Your task to perform on an android device: change the upload size in google photos Image 0: 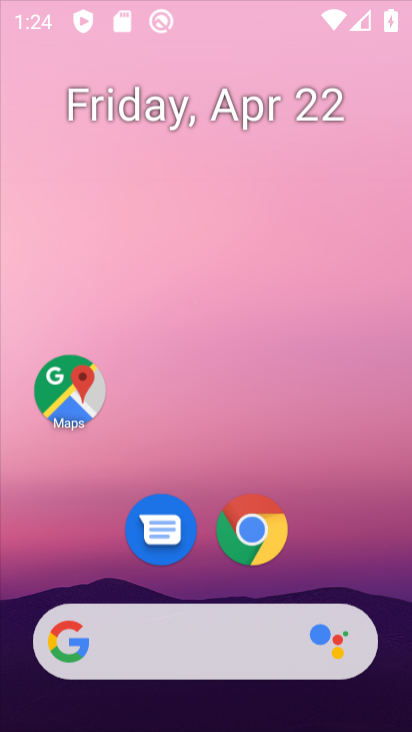
Step 0: click (233, 85)
Your task to perform on an android device: change the upload size in google photos Image 1: 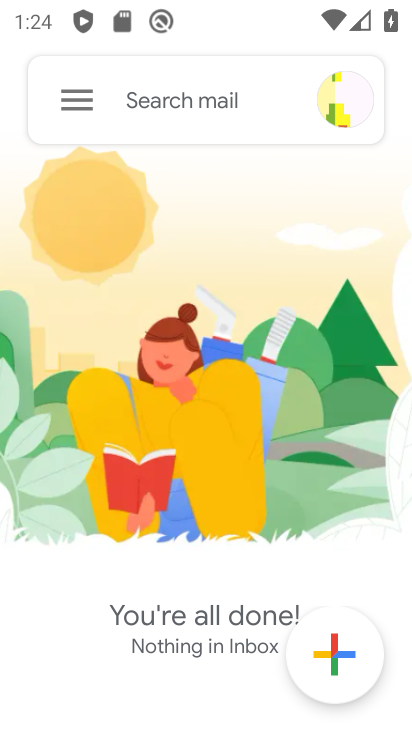
Step 1: press home button
Your task to perform on an android device: change the upload size in google photos Image 2: 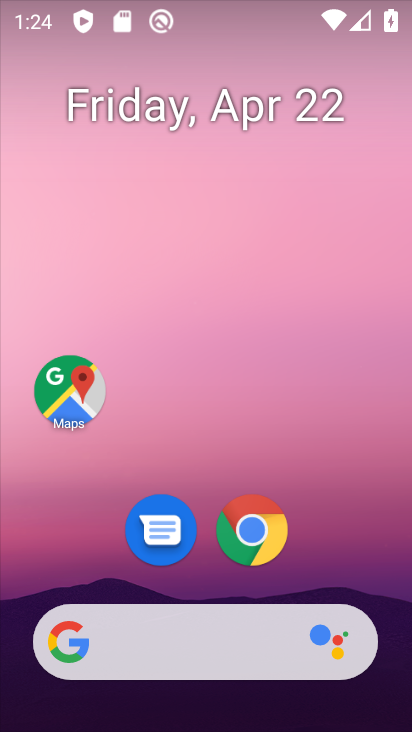
Step 2: drag from (253, 617) to (285, 176)
Your task to perform on an android device: change the upload size in google photos Image 3: 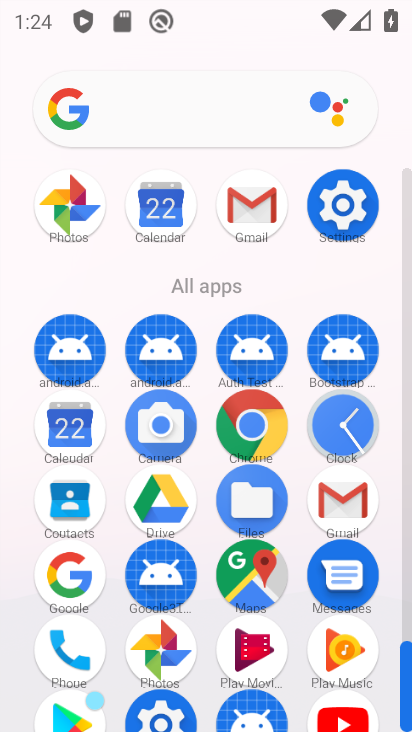
Step 3: click (69, 189)
Your task to perform on an android device: change the upload size in google photos Image 4: 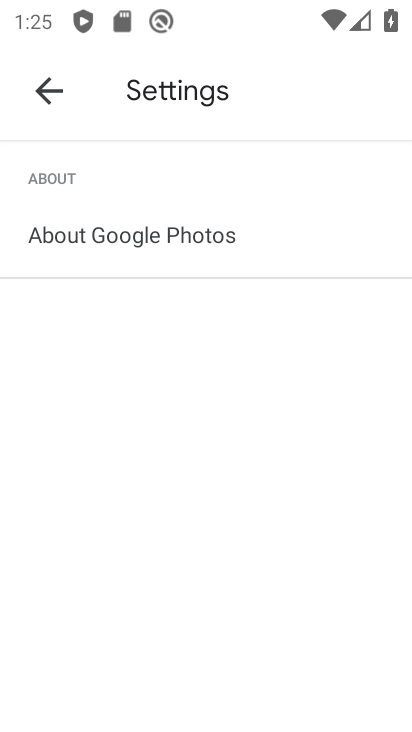
Step 4: click (44, 98)
Your task to perform on an android device: change the upload size in google photos Image 5: 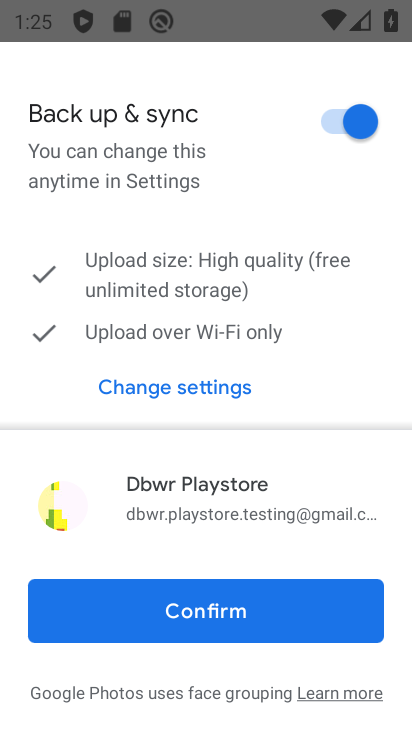
Step 5: click (281, 608)
Your task to perform on an android device: change the upload size in google photos Image 6: 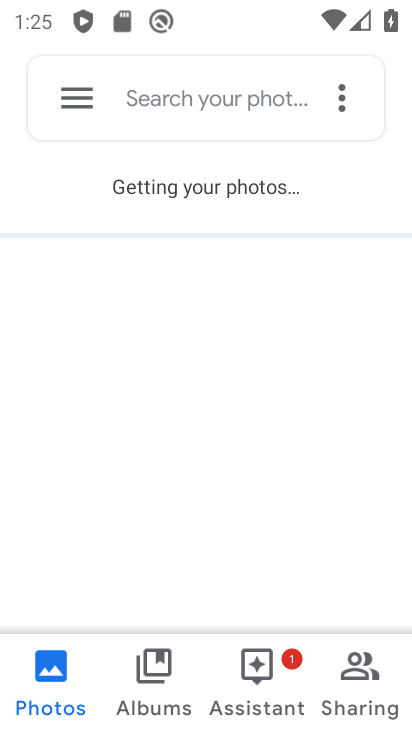
Step 6: click (66, 94)
Your task to perform on an android device: change the upload size in google photos Image 7: 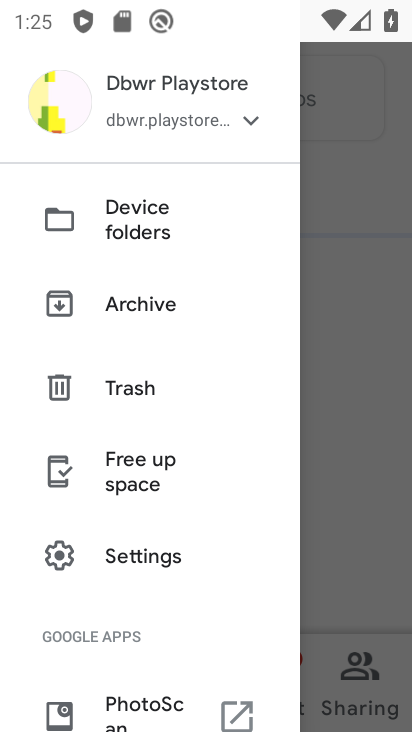
Step 7: click (140, 550)
Your task to perform on an android device: change the upload size in google photos Image 8: 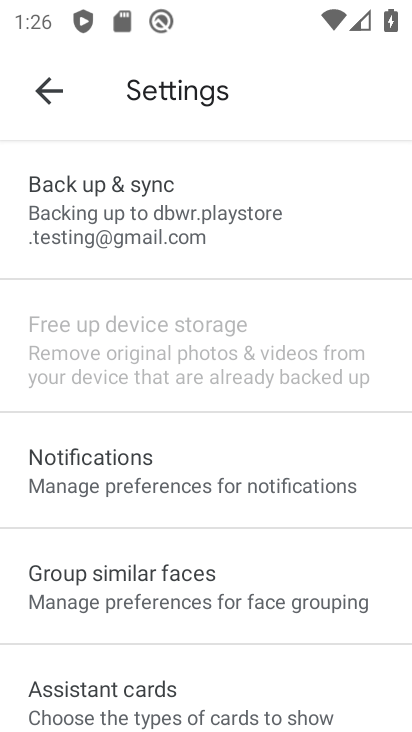
Step 8: drag from (174, 523) to (182, 236)
Your task to perform on an android device: change the upload size in google photos Image 9: 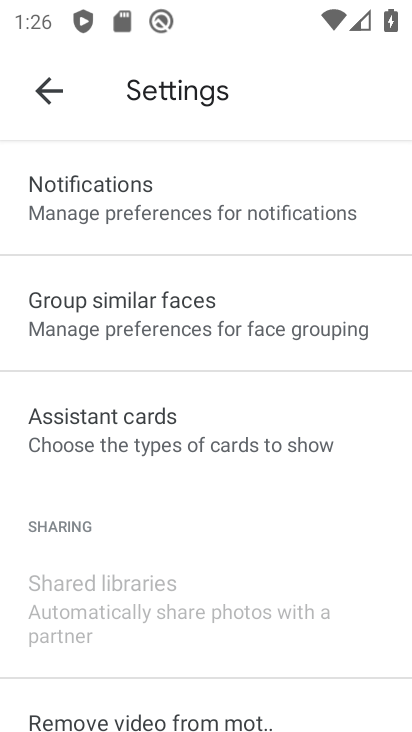
Step 9: drag from (204, 174) to (123, 655)
Your task to perform on an android device: change the upload size in google photos Image 10: 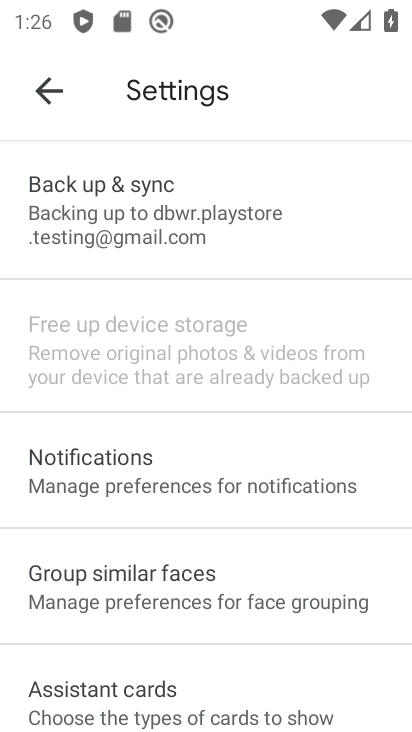
Step 10: click (202, 211)
Your task to perform on an android device: change the upload size in google photos Image 11: 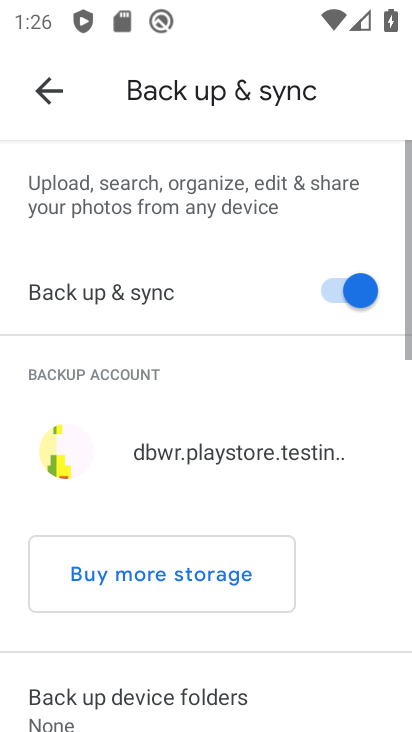
Step 11: drag from (174, 567) to (180, 170)
Your task to perform on an android device: change the upload size in google photos Image 12: 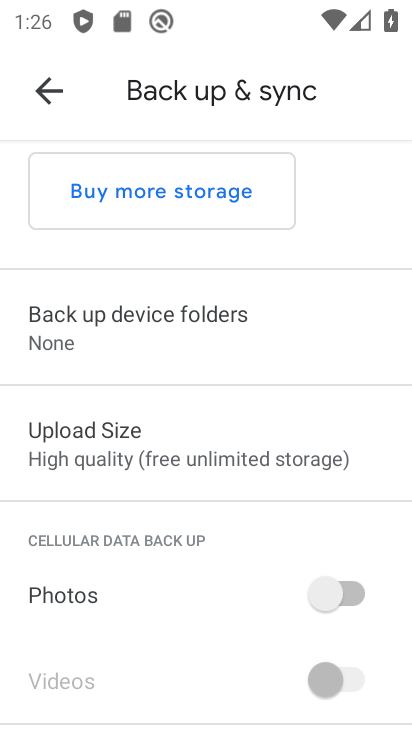
Step 12: click (197, 452)
Your task to perform on an android device: change the upload size in google photos Image 13: 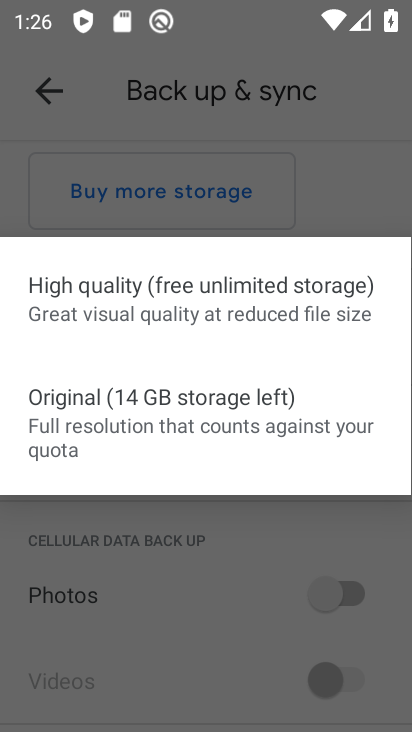
Step 13: click (161, 450)
Your task to perform on an android device: change the upload size in google photos Image 14: 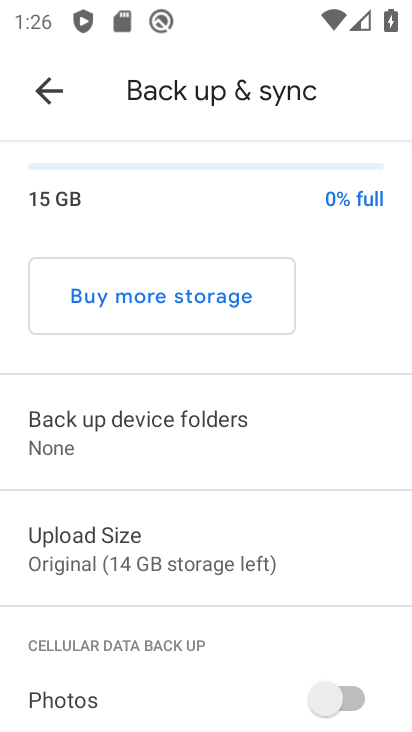
Step 14: task complete